Your task to perform on an android device: Search for a new phone on Amazon. Image 0: 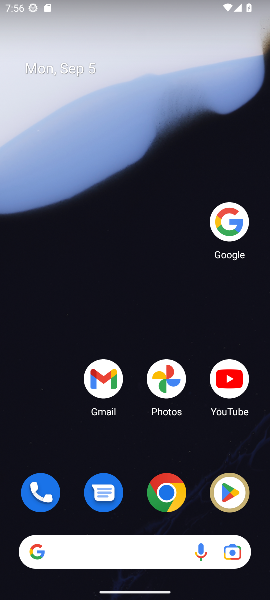
Step 0: click (220, 208)
Your task to perform on an android device: Search for a new phone on Amazon. Image 1: 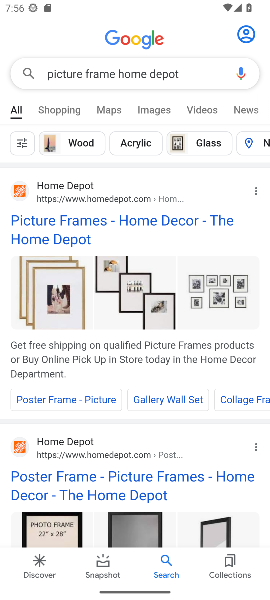
Step 1: click (189, 60)
Your task to perform on an android device: Search for a new phone on Amazon. Image 2: 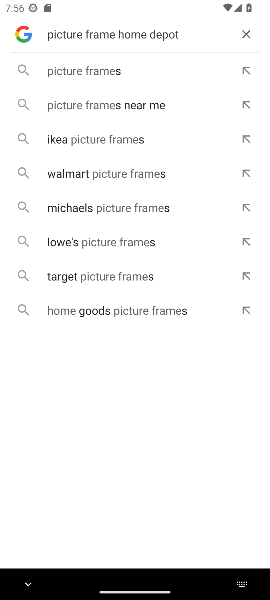
Step 2: click (251, 24)
Your task to perform on an android device: Search for a new phone on Amazon. Image 3: 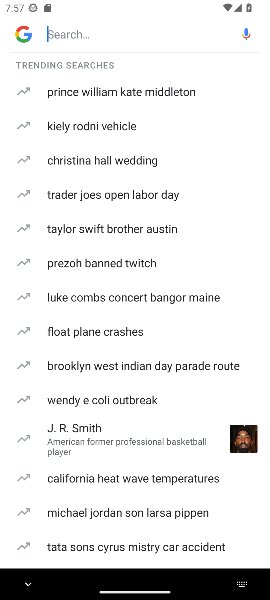
Step 3: click (107, 27)
Your task to perform on an android device: Search for a new phone on Amazon. Image 4: 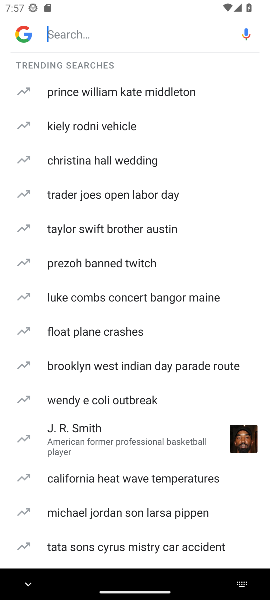
Step 4: type " a new phone on Amazon "
Your task to perform on an android device: Search for a new phone on Amazon. Image 5: 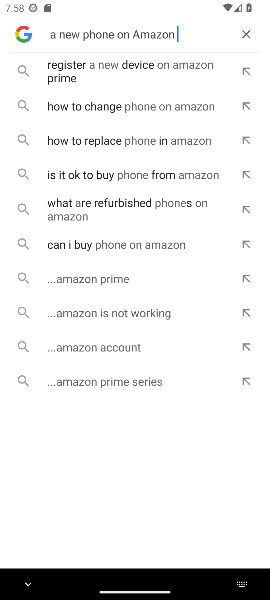
Step 5: click (115, 247)
Your task to perform on an android device: Search for a new phone on Amazon. Image 6: 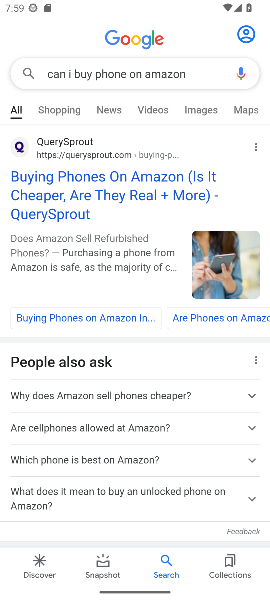
Step 6: click (69, 181)
Your task to perform on an android device: Search for a new phone on Amazon. Image 7: 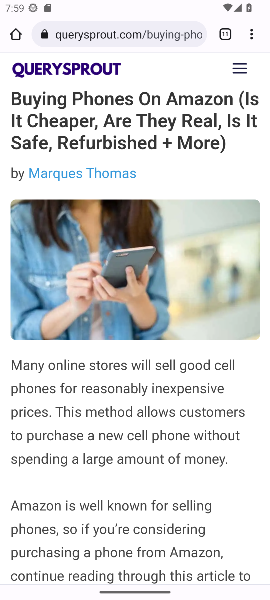
Step 7: task complete